Your task to perform on an android device: move a message to another label in the gmail app Image 0: 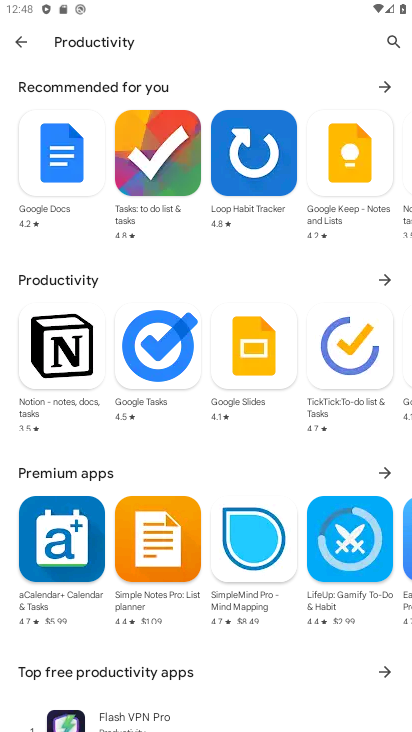
Step 0: press home button
Your task to perform on an android device: move a message to another label in the gmail app Image 1: 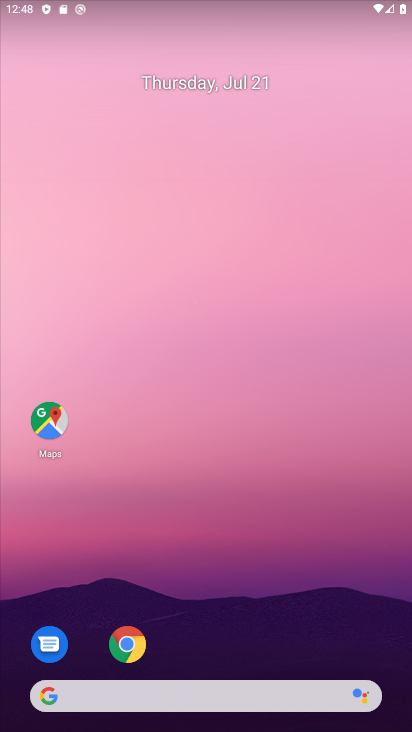
Step 1: drag from (207, 692) to (210, 148)
Your task to perform on an android device: move a message to another label in the gmail app Image 2: 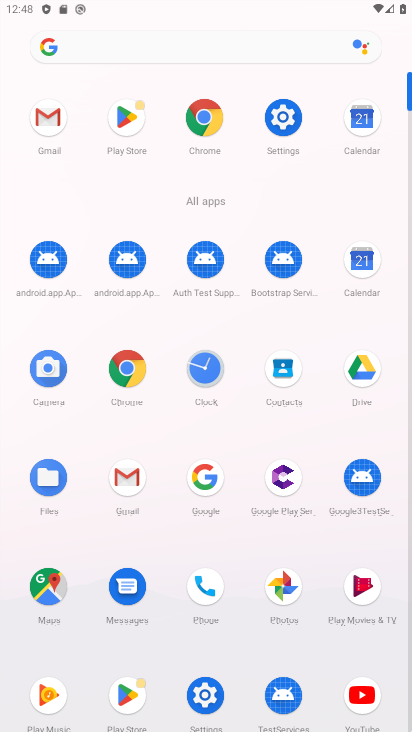
Step 2: click (119, 486)
Your task to perform on an android device: move a message to another label in the gmail app Image 3: 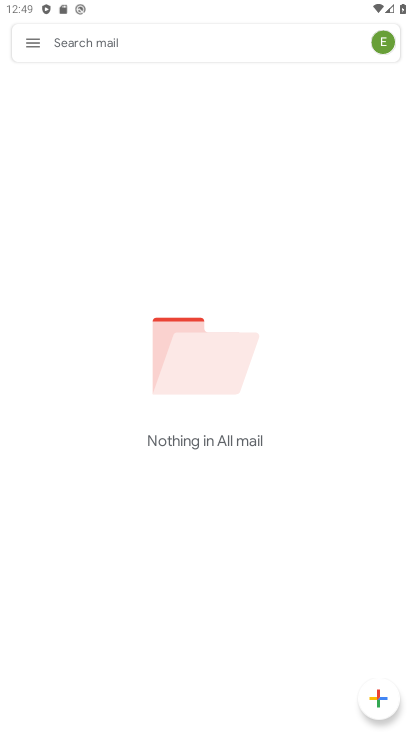
Step 3: task complete